Your task to perform on an android device: Check the news Image 0: 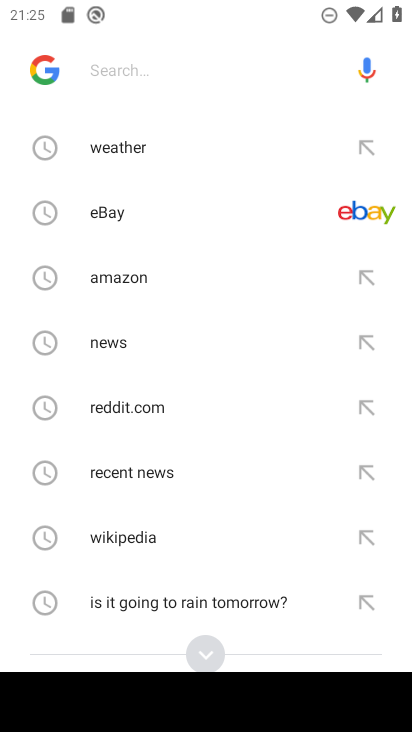
Step 0: press home button
Your task to perform on an android device: Check the news Image 1: 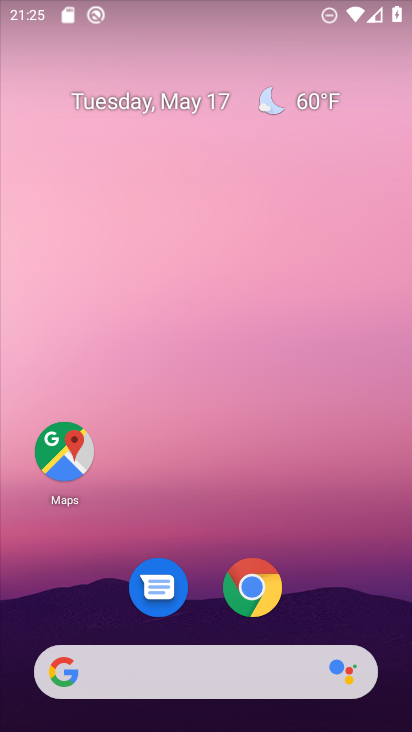
Step 1: drag from (207, 529) to (162, 148)
Your task to perform on an android device: Check the news Image 2: 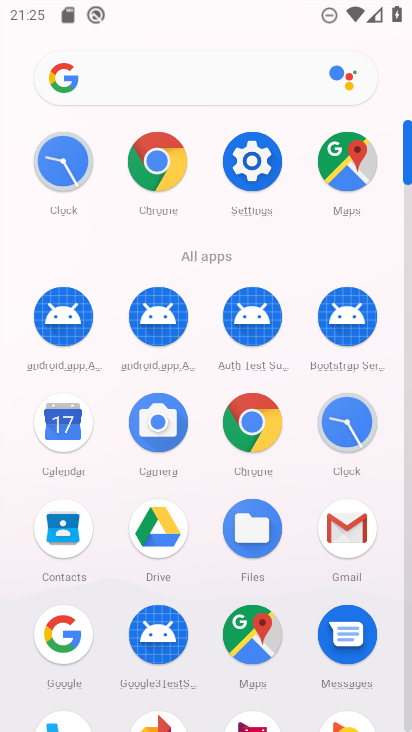
Step 2: drag from (210, 276) to (104, 58)
Your task to perform on an android device: Check the news Image 3: 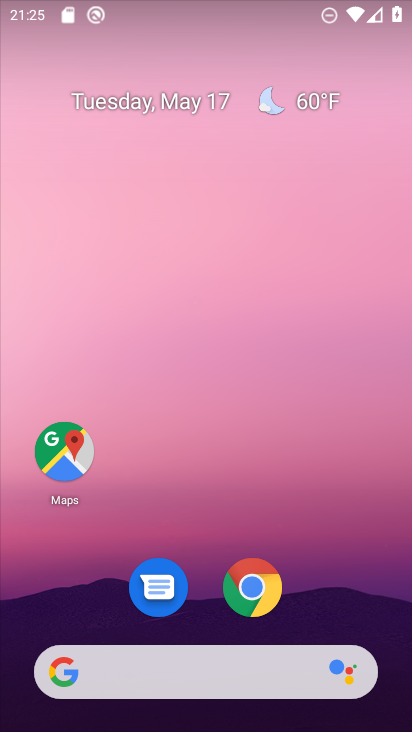
Step 3: drag from (268, 550) to (197, 242)
Your task to perform on an android device: Check the news Image 4: 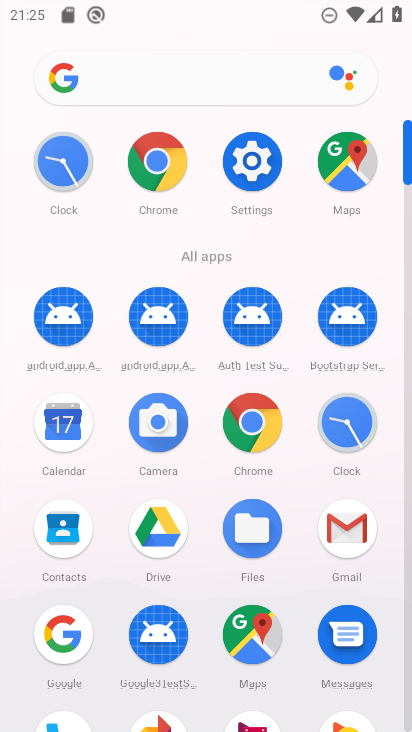
Step 4: click (74, 643)
Your task to perform on an android device: Check the news Image 5: 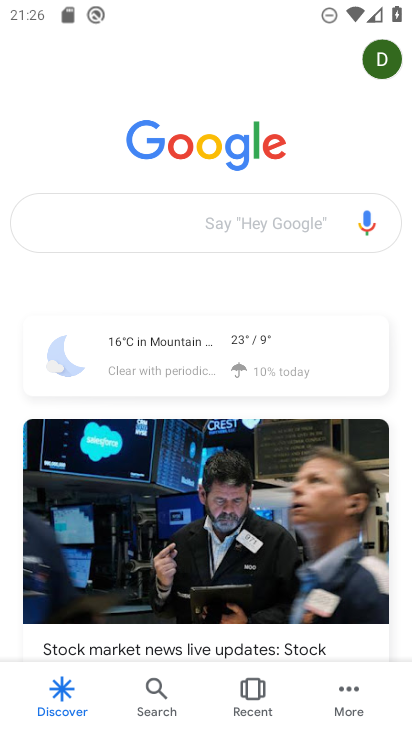
Step 5: task complete